Your task to perform on an android device: uninstall "Google Duo" Image 0: 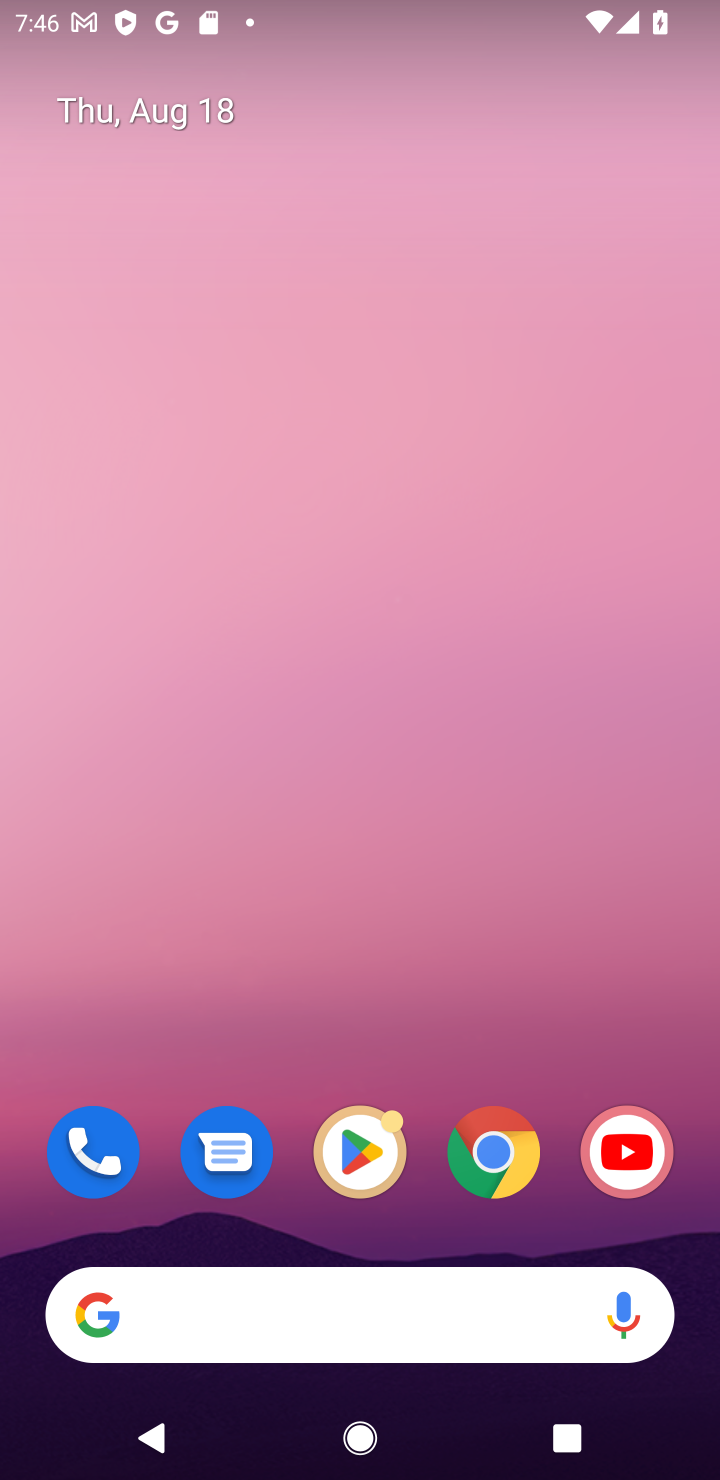
Step 0: click (391, 1162)
Your task to perform on an android device: uninstall "Google Duo" Image 1: 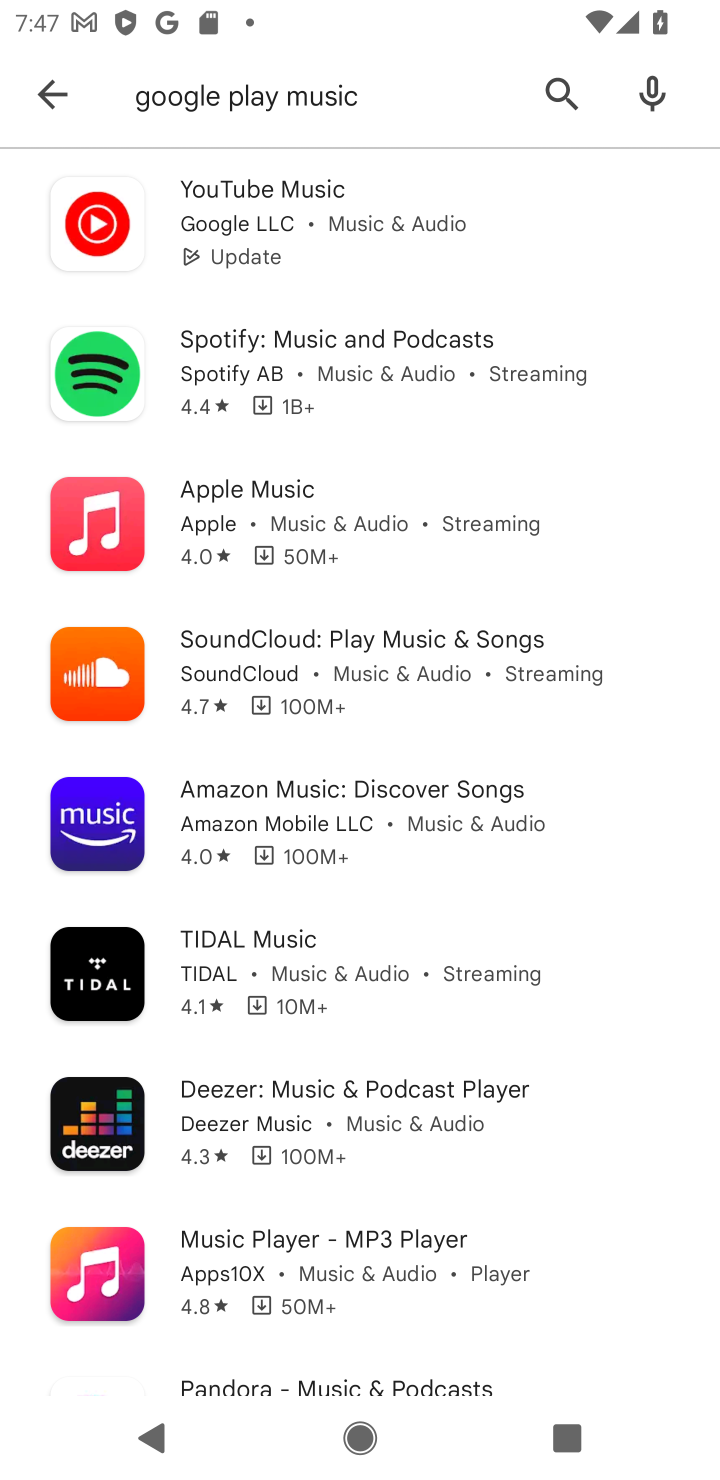
Step 1: click (556, 106)
Your task to perform on an android device: uninstall "Google Duo" Image 2: 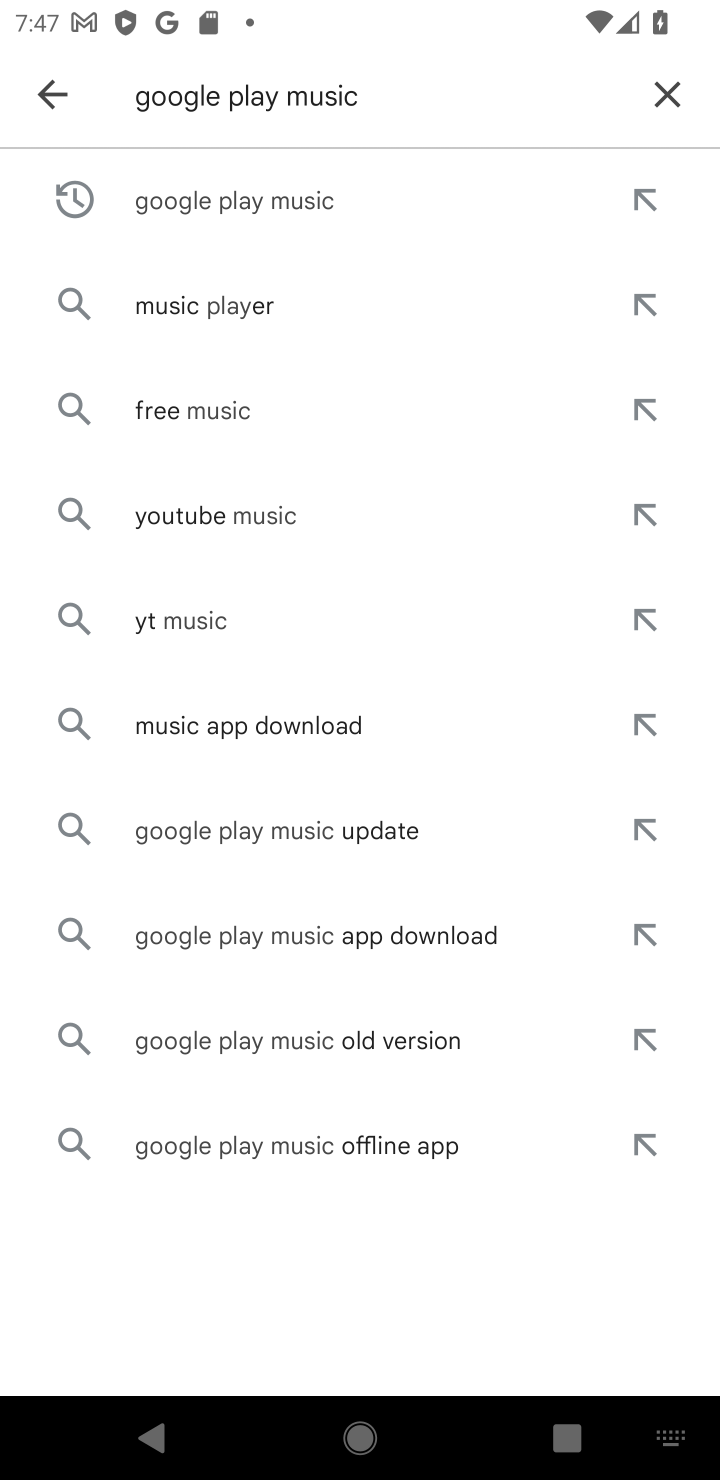
Step 2: click (671, 110)
Your task to perform on an android device: uninstall "Google Duo" Image 3: 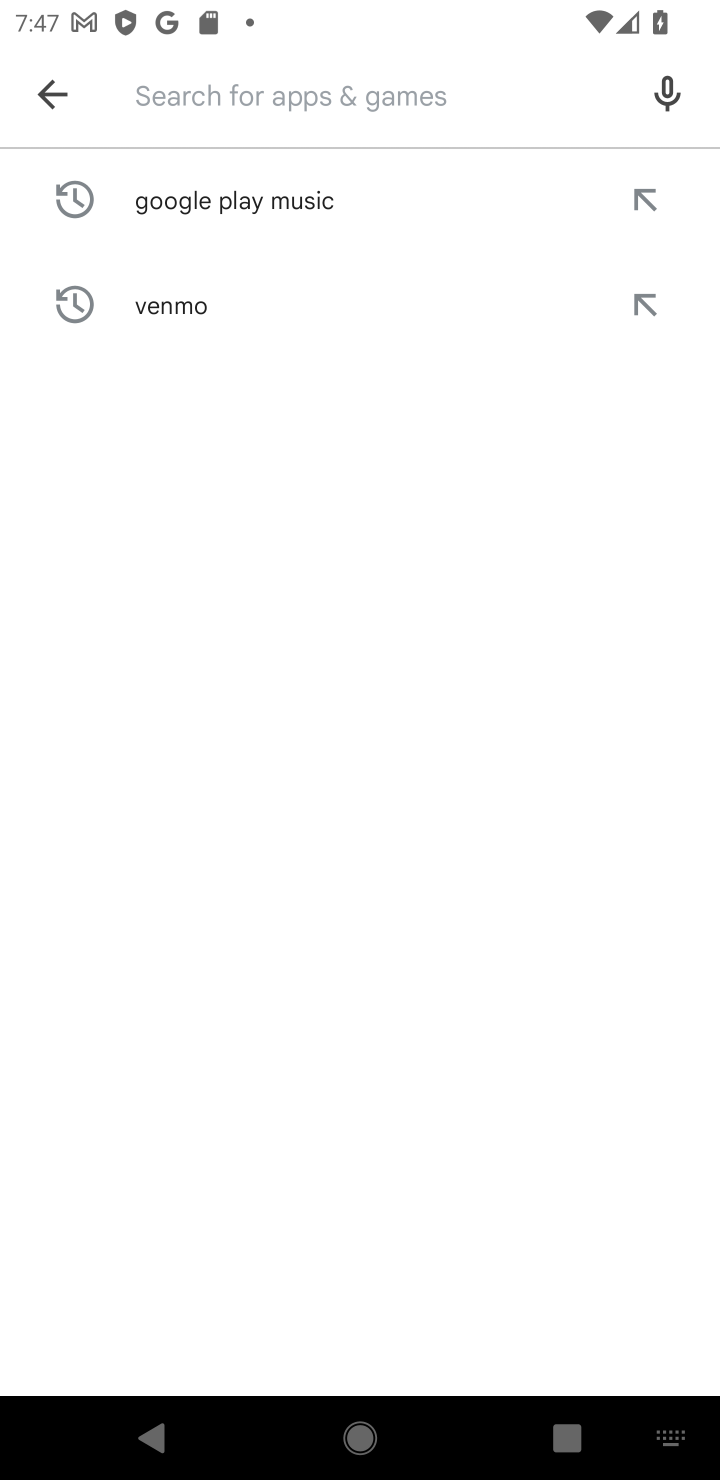
Step 3: type "google duo"
Your task to perform on an android device: uninstall "Google Duo" Image 4: 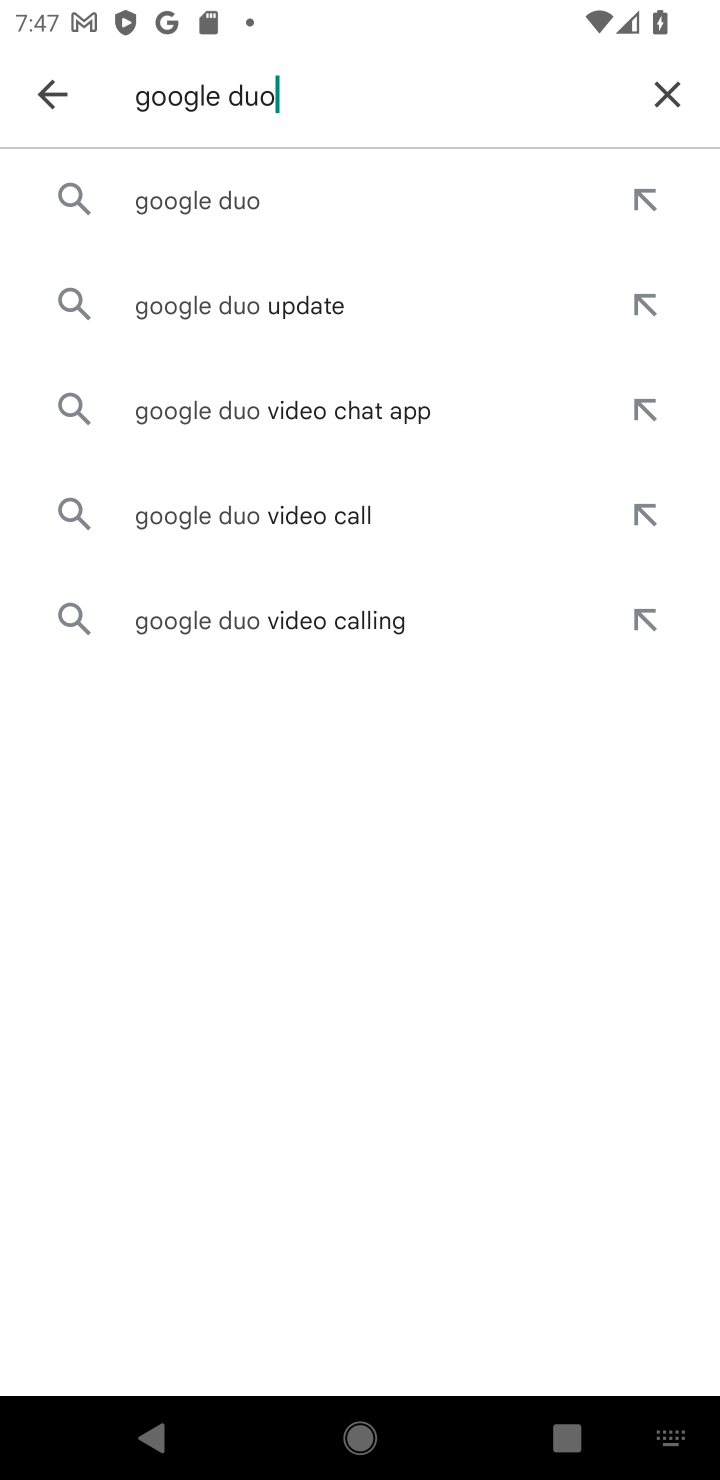
Step 4: click (292, 187)
Your task to perform on an android device: uninstall "Google Duo" Image 5: 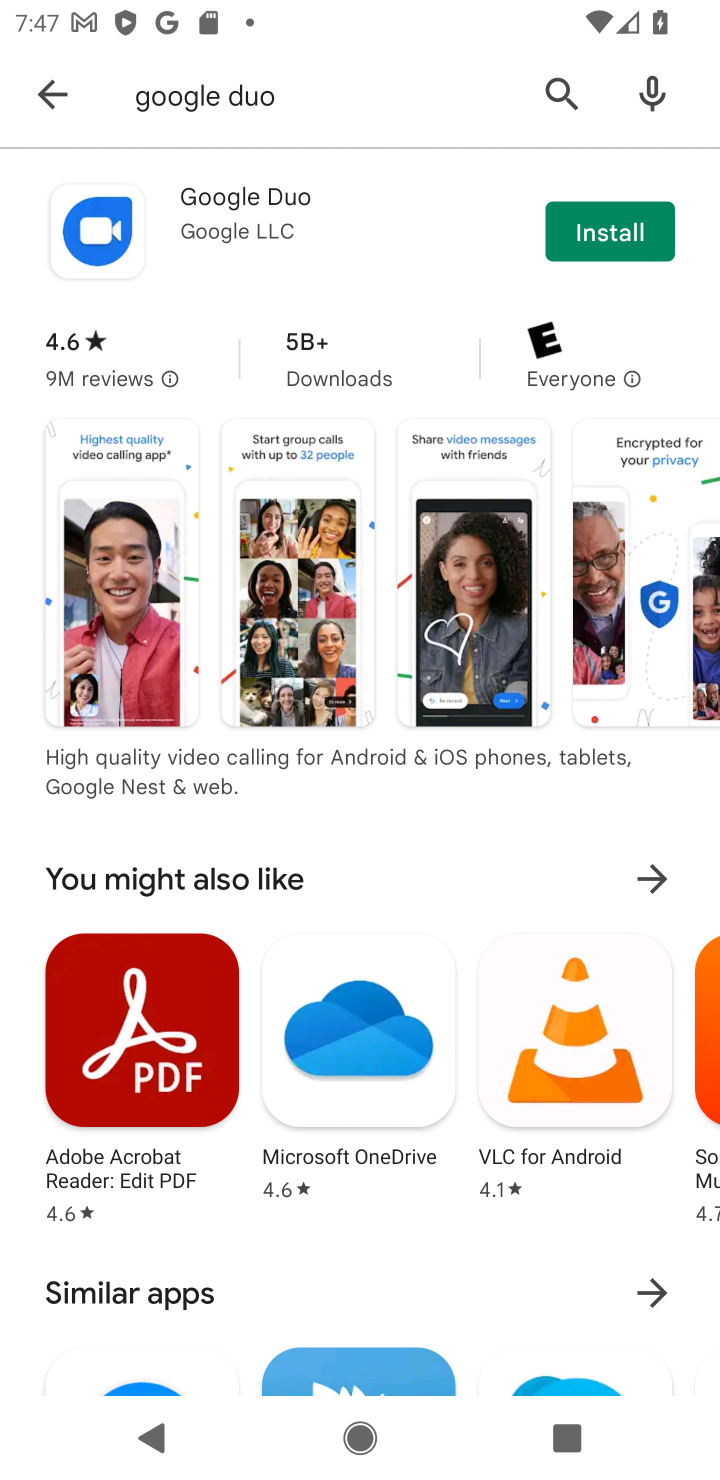
Step 5: click (336, 215)
Your task to perform on an android device: uninstall "Google Duo" Image 6: 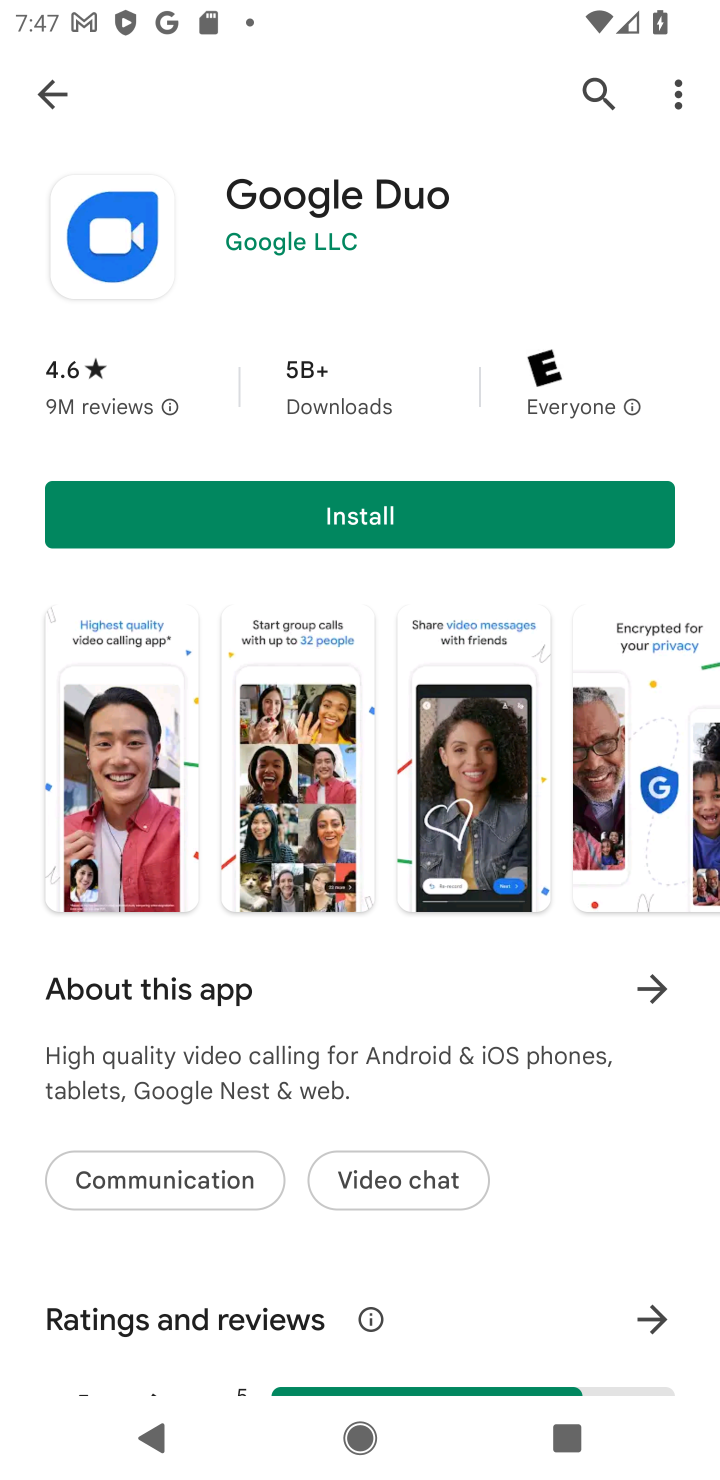
Step 6: task complete